Your task to perform on an android device: clear history in the chrome app Image 0: 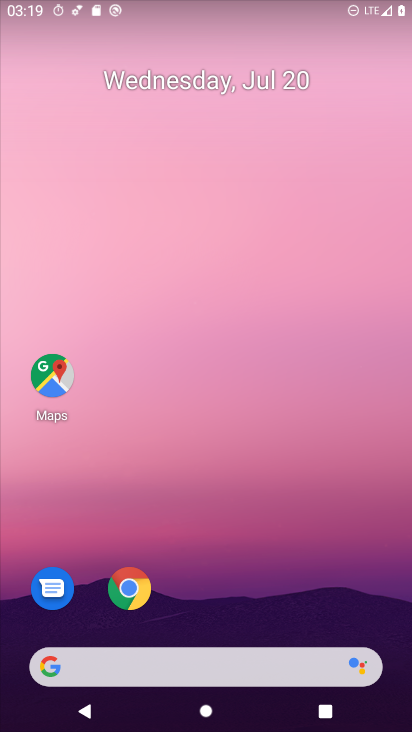
Step 0: click (136, 599)
Your task to perform on an android device: clear history in the chrome app Image 1: 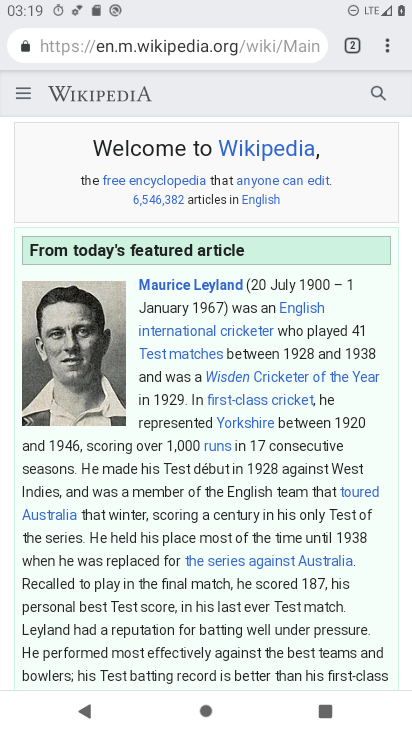
Step 1: click (391, 46)
Your task to perform on an android device: clear history in the chrome app Image 2: 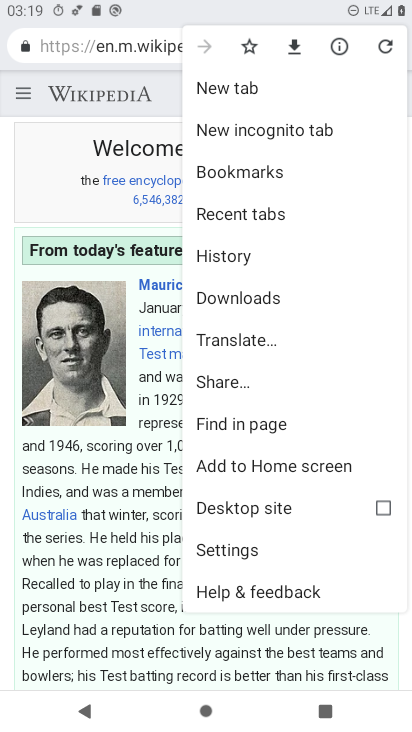
Step 2: click (222, 257)
Your task to perform on an android device: clear history in the chrome app Image 3: 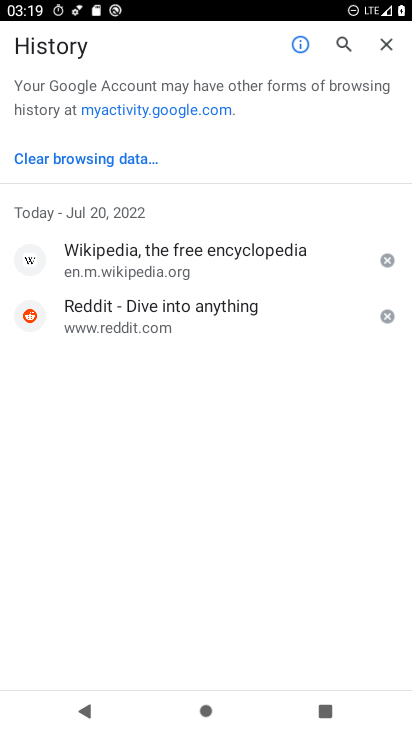
Step 3: click (89, 162)
Your task to perform on an android device: clear history in the chrome app Image 4: 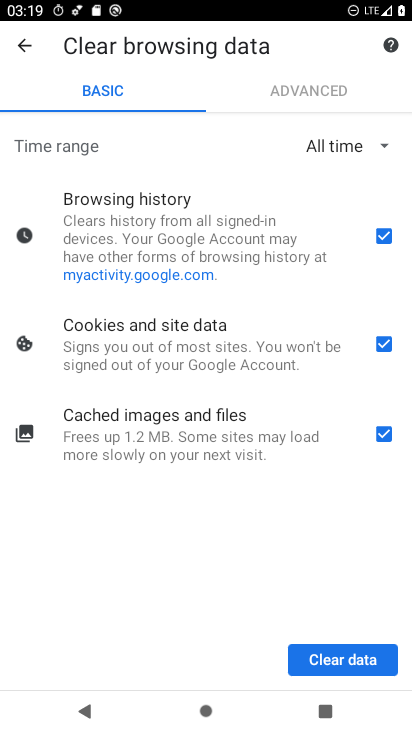
Step 4: click (334, 648)
Your task to perform on an android device: clear history in the chrome app Image 5: 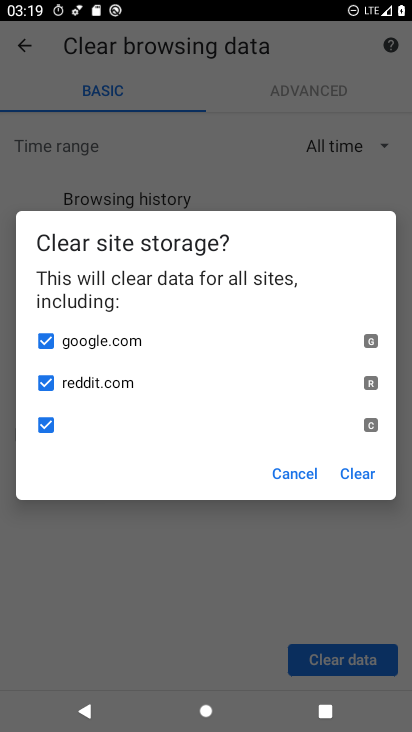
Step 5: click (373, 472)
Your task to perform on an android device: clear history in the chrome app Image 6: 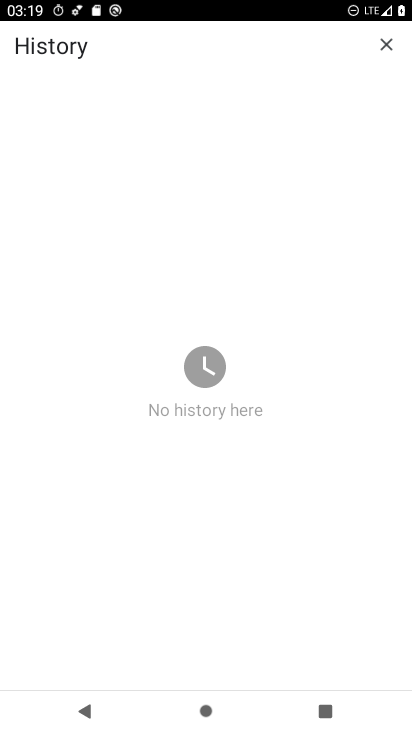
Step 6: task complete